Your task to perform on an android device: Play the last video I watched on Youtube Image 0: 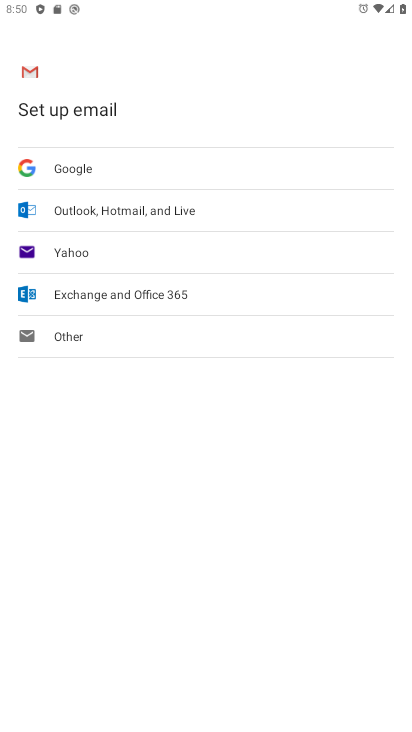
Step 0: press home button
Your task to perform on an android device: Play the last video I watched on Youtube Image 1: 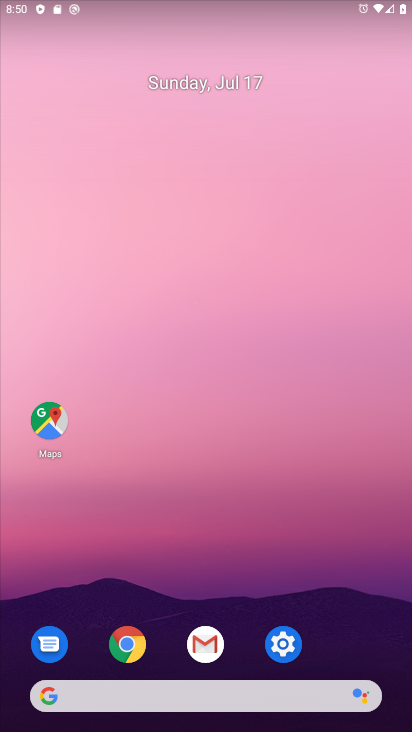
Step 1: drag from (306, 624) to (326, 120)
Your task to perform on an android device: Play the last video I watched on Youtube Image 2: 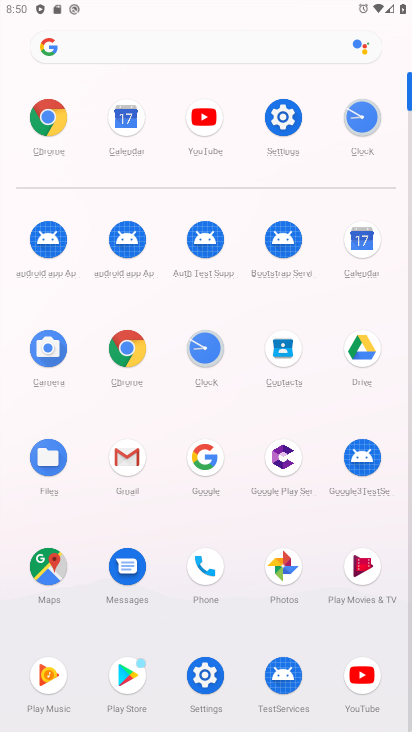
Step 2: click (356, 666)
Your task to perform on an android device: Play the last video I watched on Youtube Image 3: 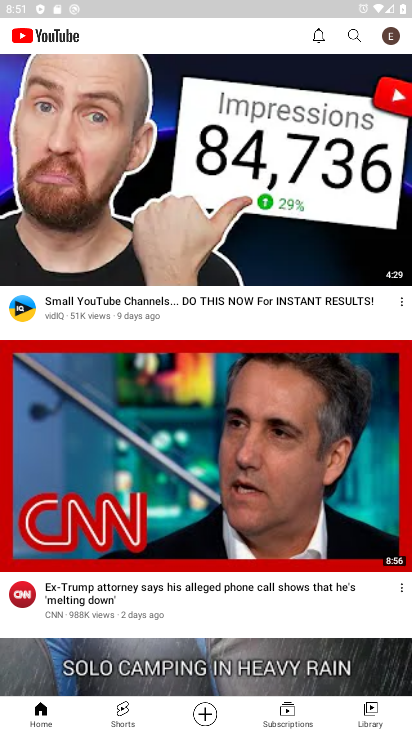
Step 3: click (365, 724)
Your task to perform on an android device: Play the last video I watched on Youtube Image 4: 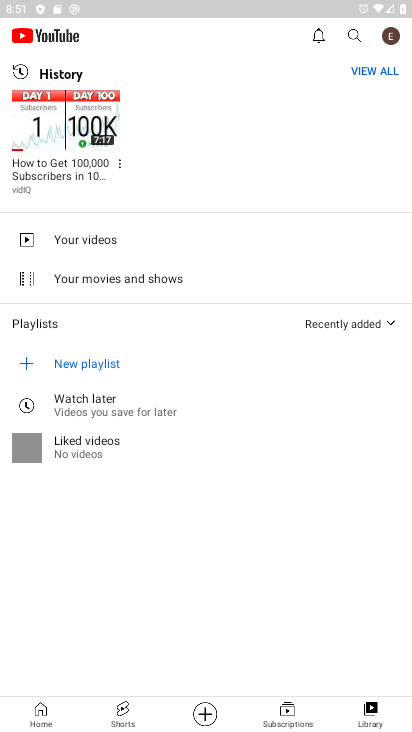
Step 4: click (82, 136)
Your task to perform on an android device: Play the last video I watched on Youtube Image 5: 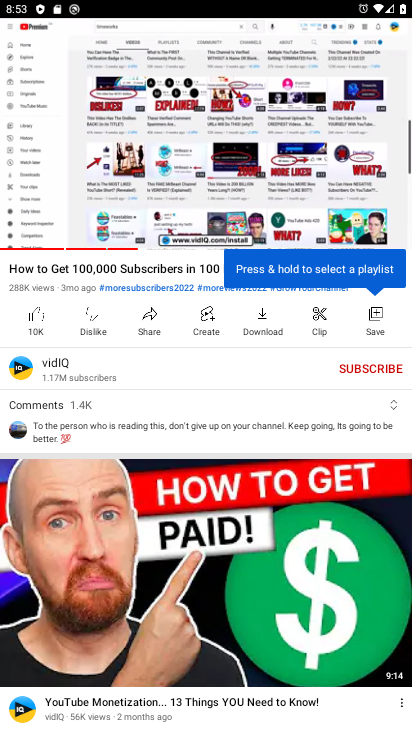
Step 5: task complete